Your task to perform on an android device: empty trash in the gmail app Image 0: 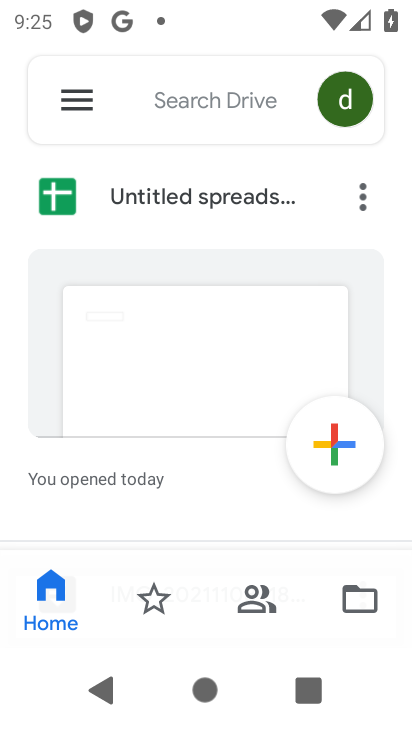
Step 0: press home button
Your task to perform on an android device: empty trash in the gmail app Image 1: 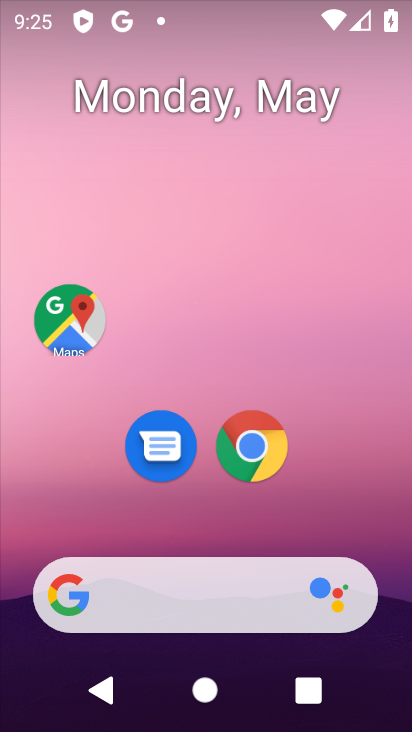
Step 1: drag from (125, 543) to (248, 187)
Your task to perform on an android device: empty trash in the gmail app Image 2: 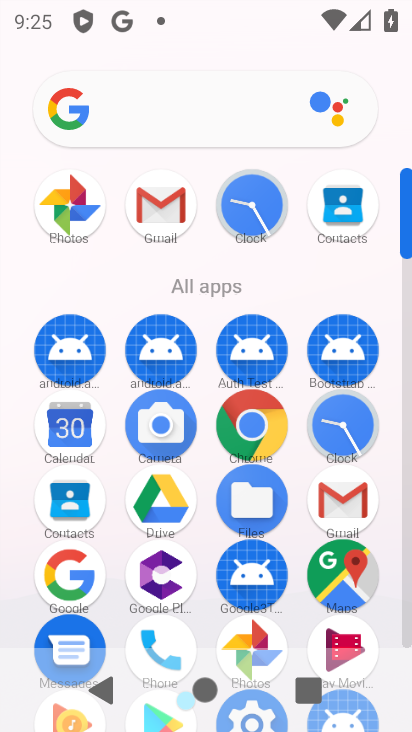
Step 2: click (342, 494)
Your task to perform on an android device: empty trash in the gmail app Image 3: 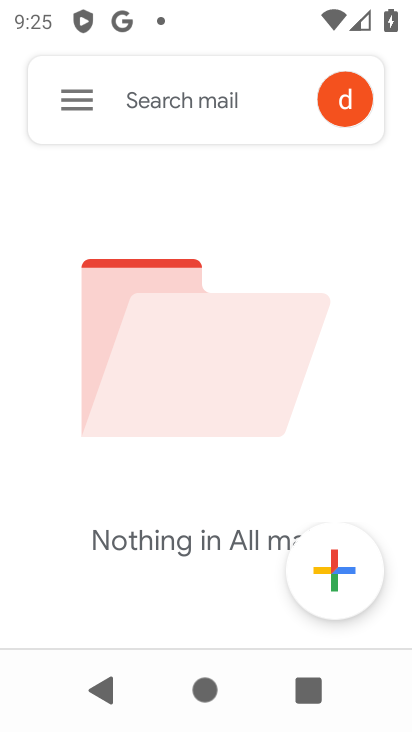
Step 3: click (74, 126)
Your task to perform on an android device: empty trash in the gmail app Image 4: 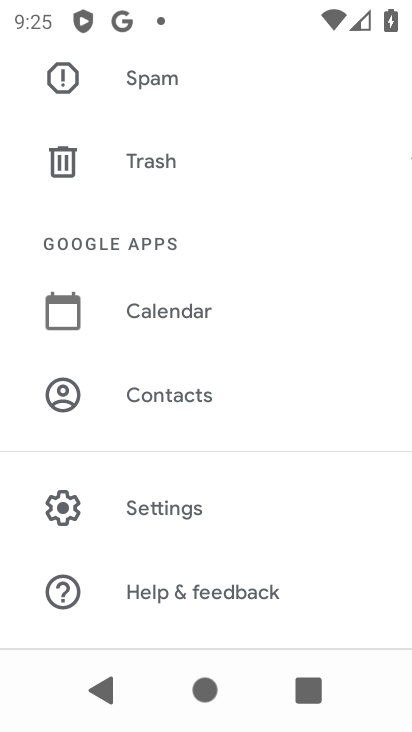
Step 4: click (171, 194)
Your task to perform on an android device: empty trash in the gmail app Image 5: 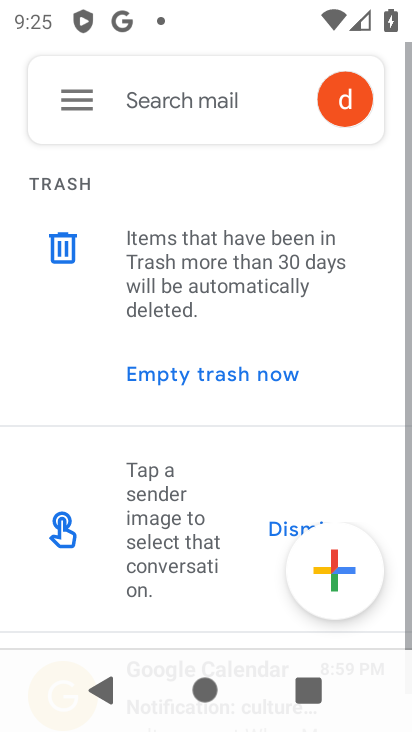
Step 5: drag from (57, 560) to (181, 194)
Your task to perform on an android device: empty trash in the gmail app Image 6: 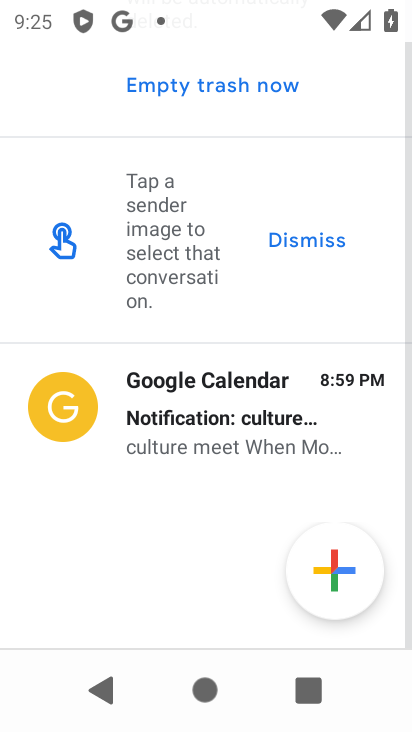
Step 6: click (221, 90)
Your task to perform on an android device: empty trash in the gmail app Image 7: 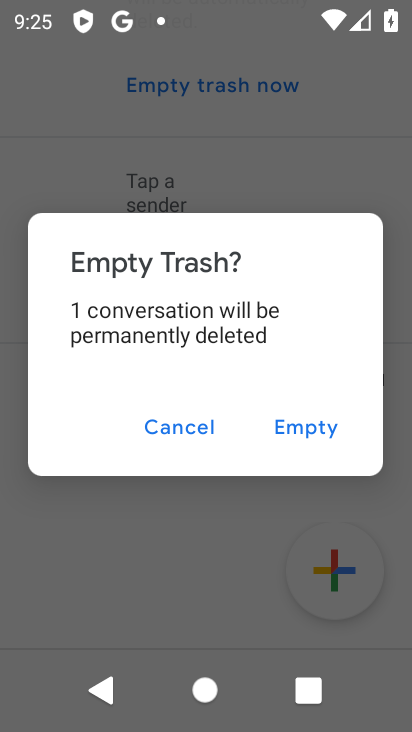
Step 7: click (290, 422)
Your task to perform on an android device: empty trash in the gmail app Image 8: 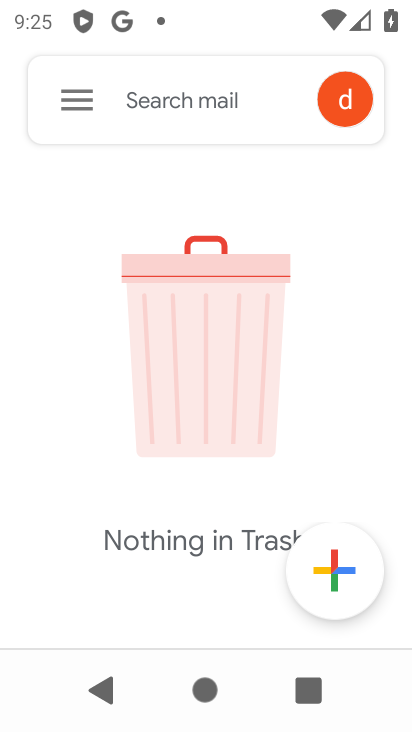
Step 8: task complete